Your task to perform on an android device: Go to sound settings Image 0: 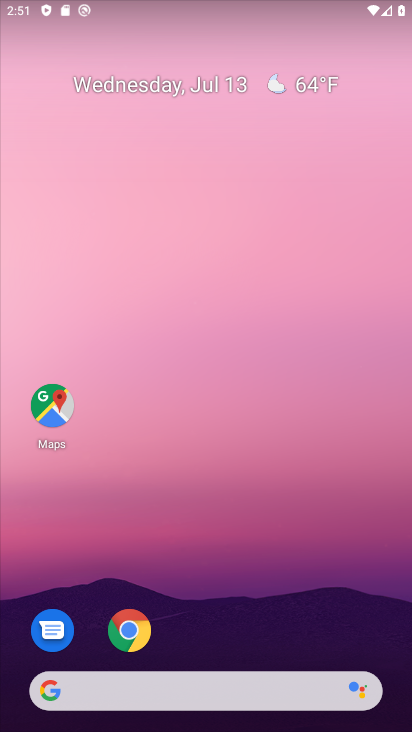
Step 0: drag from (261, 579) to (276, 223)
Your task to perform on an android device: Go to sound settings Image 1: 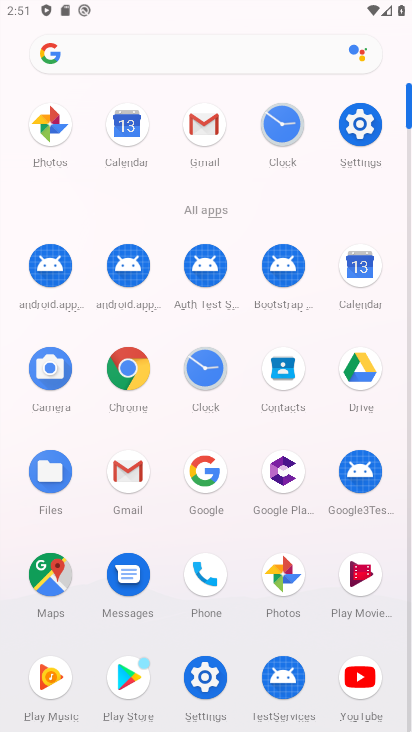
Step 1: click (365, 120)
Your task to perform on an android device: Go to sound settings Image 2: 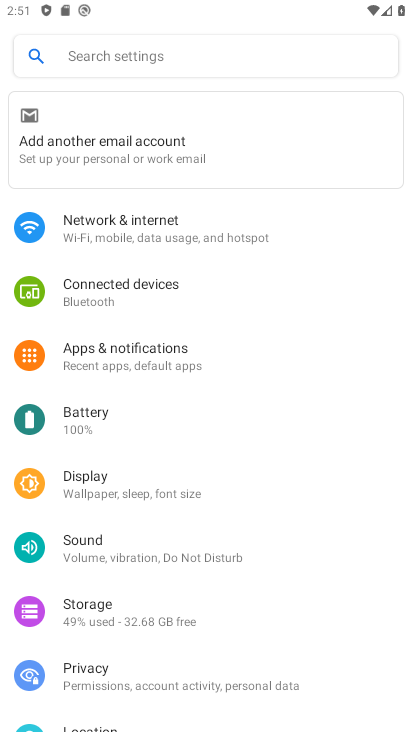
Step 2: click (91, 555)
Your task to perform on an android device: Go to sound settings Image 3: 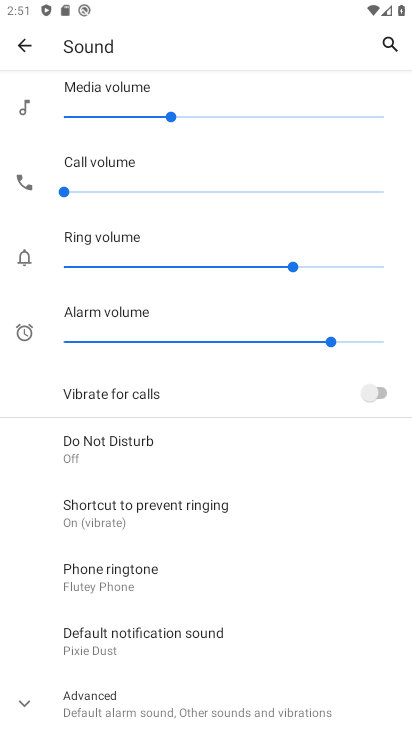
Step 3: task complete